Your task to perform on an android device: toggle airplane mode Image 0: 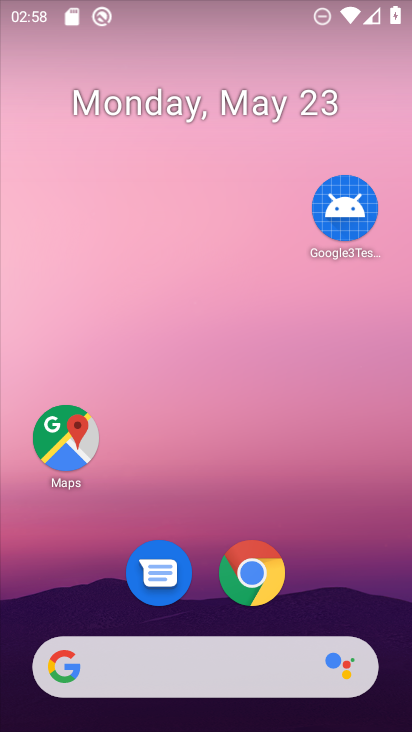
Step 0: drag from (379, 556) to (358, 37)
Your task to perform on an android device: toggle airplane mode Image 1: 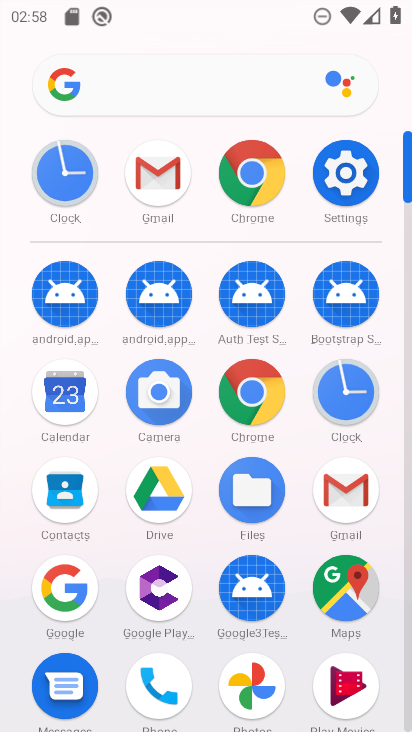
Step 1: click (357, 161)
Your task to perform on an android device: toggle airplane mode Image 2: 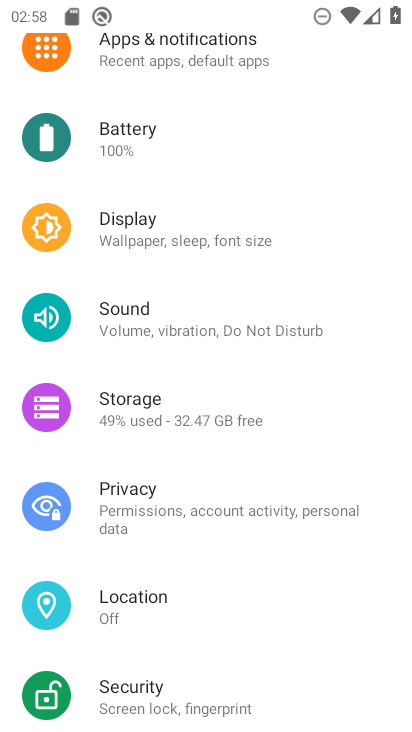
Step 2: drag from (232, 118) to (245, 567)
Your task to perform on an android device: toggle airplane mode Image 3: 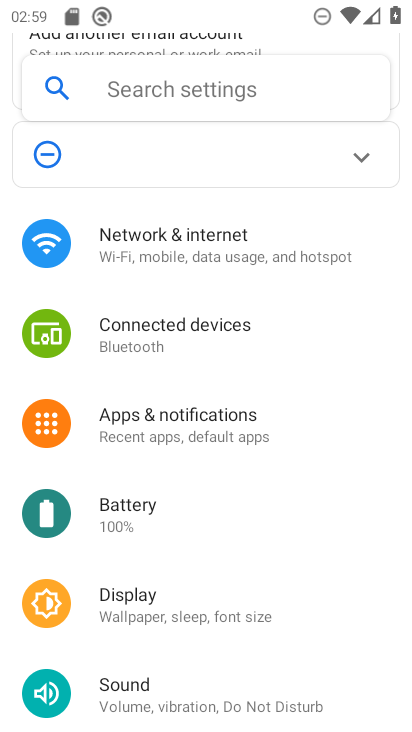
Step 3: click (221, 240)
Your task to perform on an android device: toggle airplane mode Image 4: 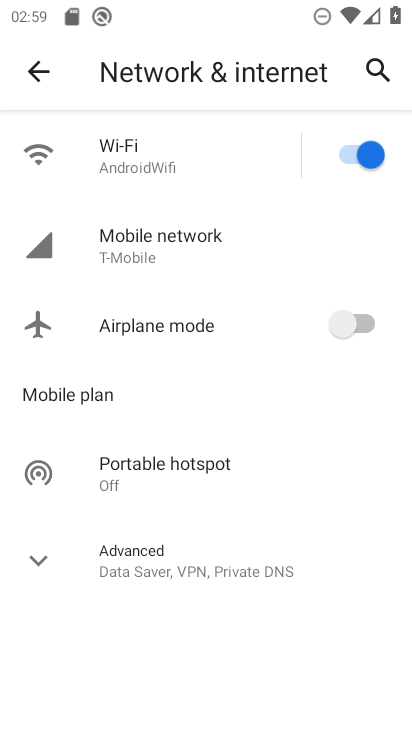
Step 4: click (331, 321)
Your task to perform on an android device: toggle airplane mode Image 5: 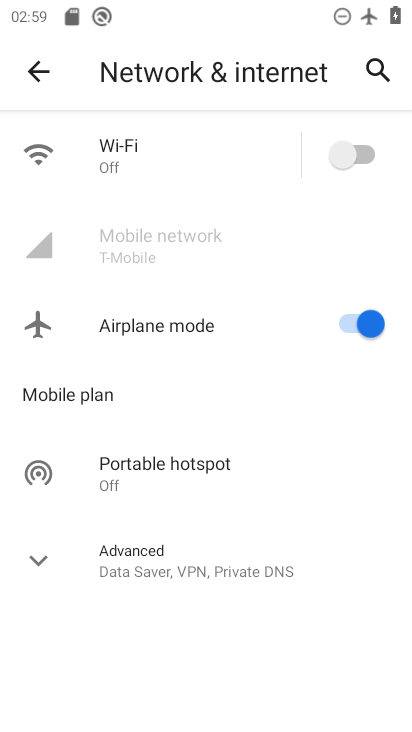
Step 5: task complete